Your task to perform on an android device: Toggle the flashlight Image 0: 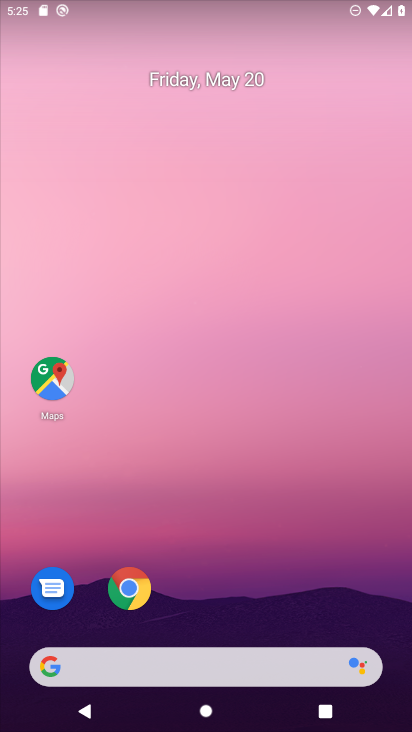
Step 0: drag from (206, 621) to (204, 248)
Your task to perform on an android device: Toggle the flashlight Image 1: 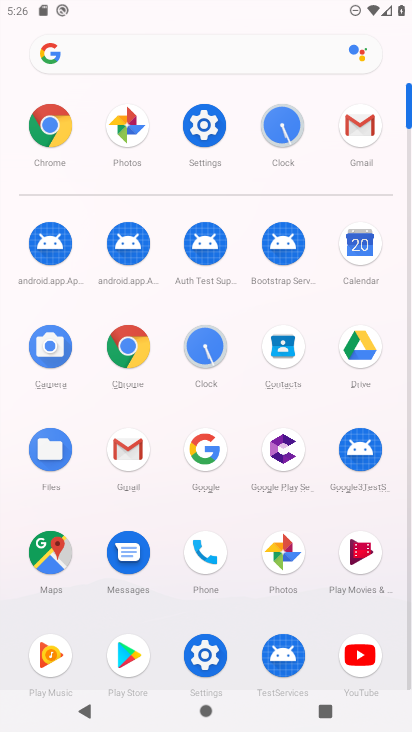
Step 1: click (204, 650)
Your task to perform on an android device: Toggle the flashlight Image 2: 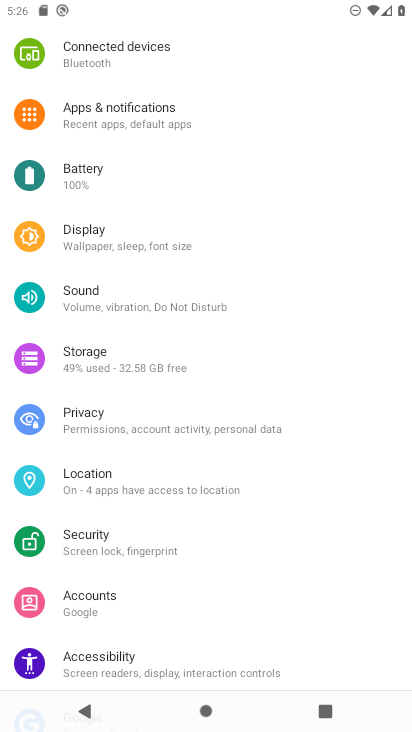
Step 2: task complete